Your task to perform on an android device: Open settings on Google Maps Image 0: 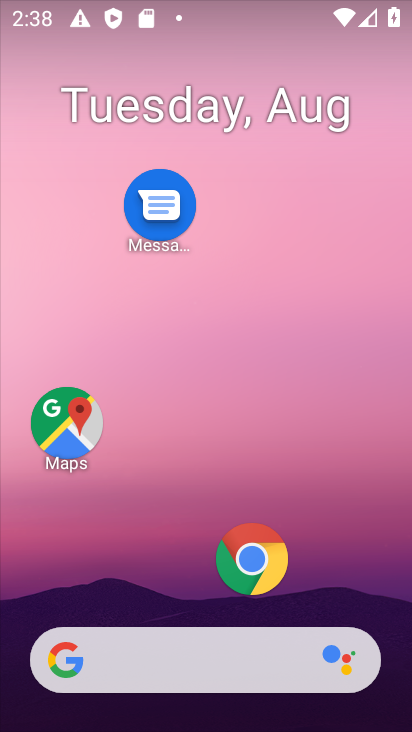
Step 0: click (70, 425)
Your task to perform on an android device: Open settings on Google Maps Image 1: 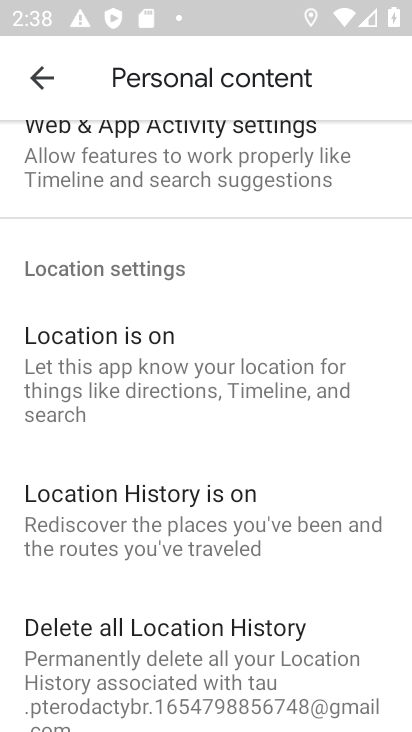
Step 1: click (39, 74)
Your task to perform on an android device: Open settings on Google Maps Image 2: 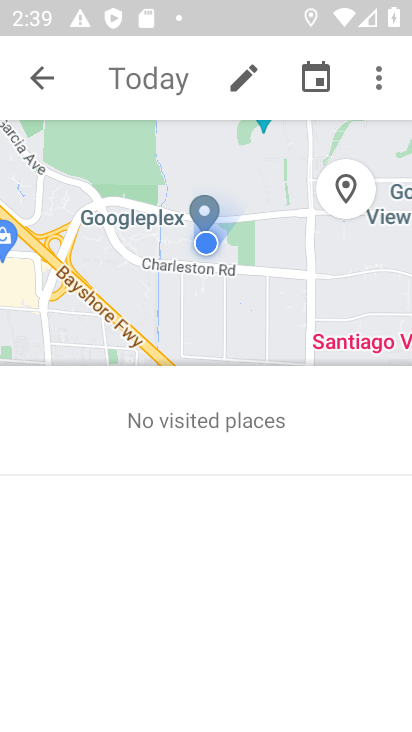
Step 2: click (37, 66)
Your task to perform on an android device: Open settings on Google Maps Image 3: 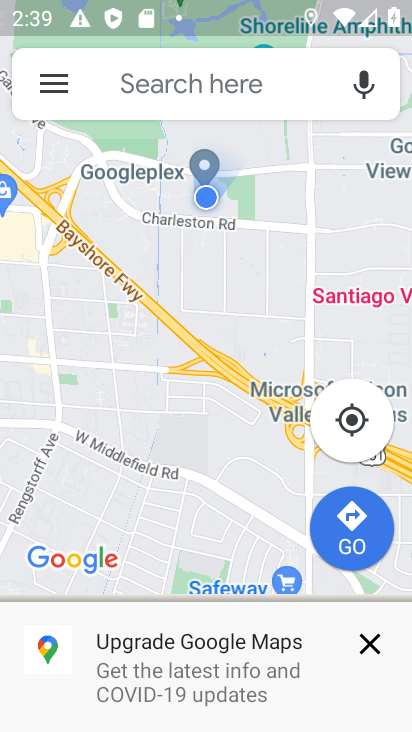
Step 3: click (55, 76)
Your task to perform on an android device: Open settings on Google Maps Image 4: 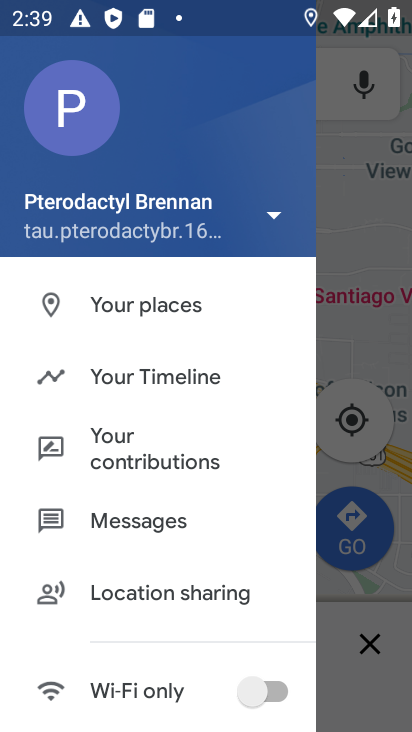
Step 4: drag from (163, 553) to (163, 330)
Your task to perform on an android device: Open settings on Google Maps Image 5: 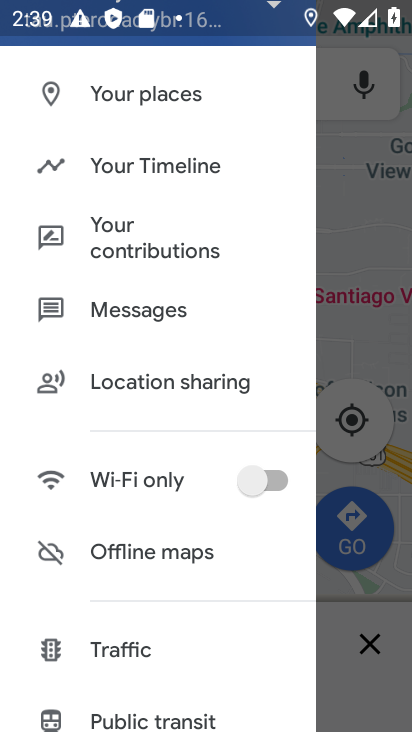
Step 5: drag from (180, 630) to (166, 366)
Your task to perform on an android device: Open settings on Google Maps Image 6: 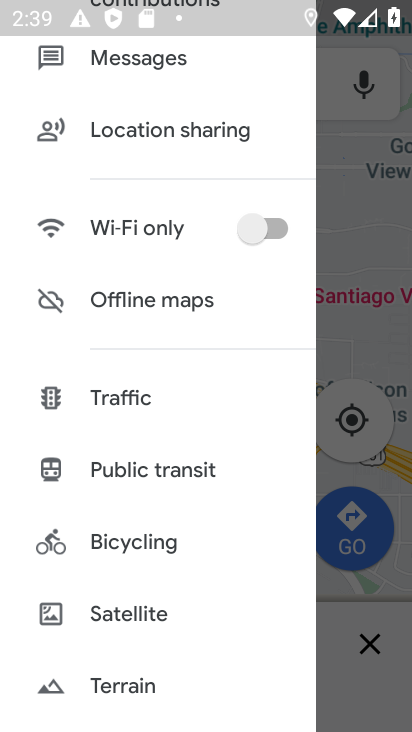
Step 6: drag from (149, 572) to (142, 168)
Your task to perform on an android device: Open settings on Google Maps Image 7: 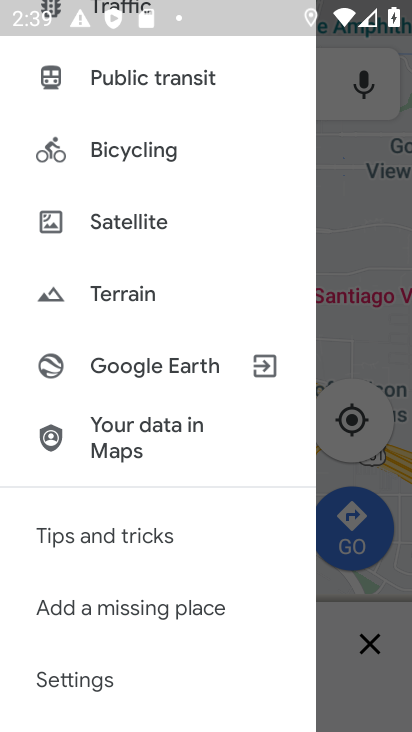
Step 7: click (80, 673)
Your task to perform on an android device: Open settings on Google Maps Image 8: 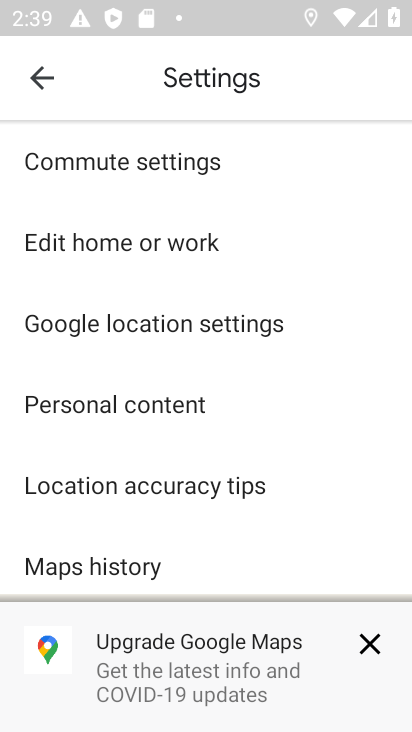
Step 8: task complete